Your task to perform on an android device: Open Youtube and go to "Your channel" Image 0: 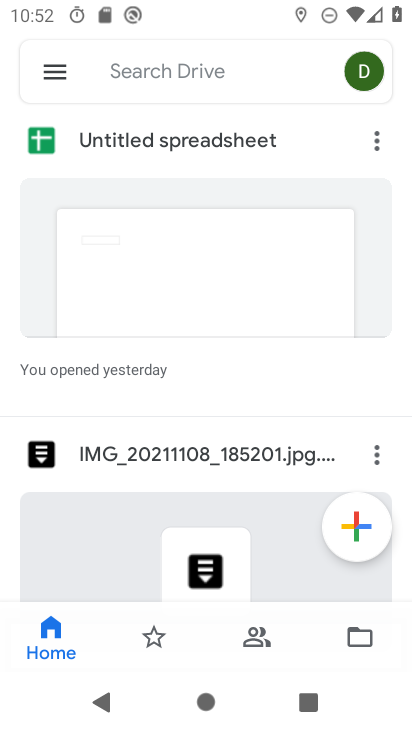
Step 0: press home button
Your task to perform on an android device: Open Youtube and go to "Your channel" Image 1: 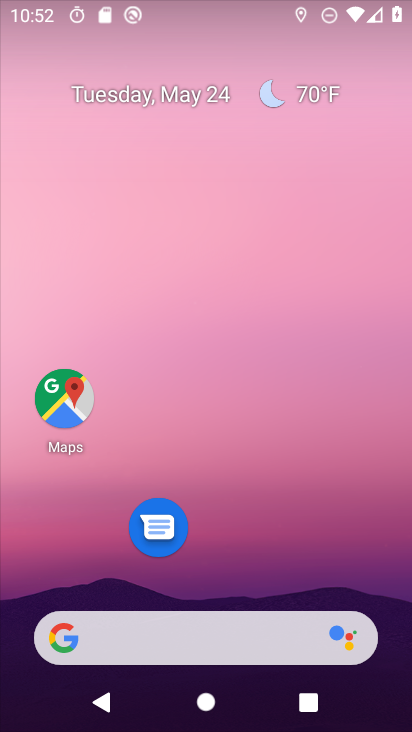
Step 1: drag from (275, 540) to (296, 49)
Your task to perform on an android device: Open Youtube and go to "Your channel" Image 2: 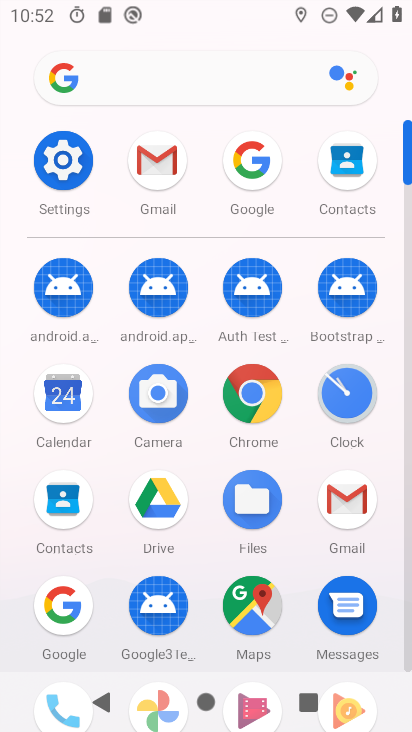
Step 2: drag from (207, 557) to (221, 174)
Your task to perform on an android device: Open Youtube and go to "Your channel" Image 3: 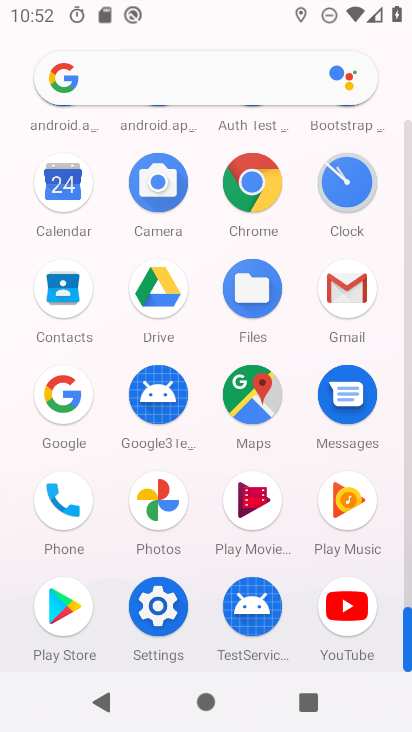
Step 3: click (354, 619)
Your task to perform on an android device: Open Youtube and go to "Your channel" Image 4: 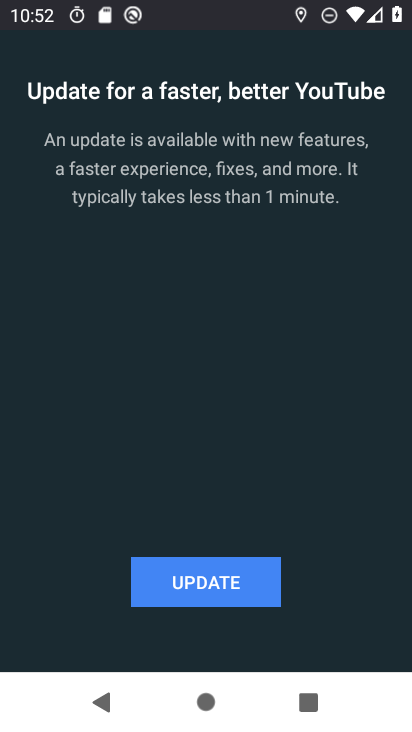
Step 4: click (214, 577)
Your task to perform on an android device: Open Youtube and go to "Your channel" Image 5: 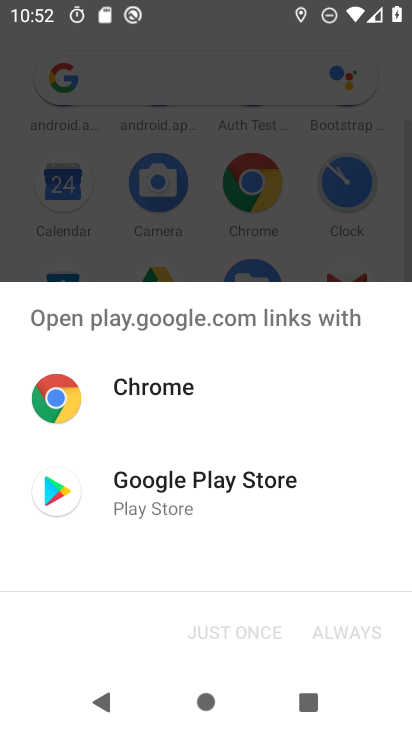
Step 5: click (184, 481)
Your task to perform on an android device: Open Youtube and go to "Your channel" Image 6: 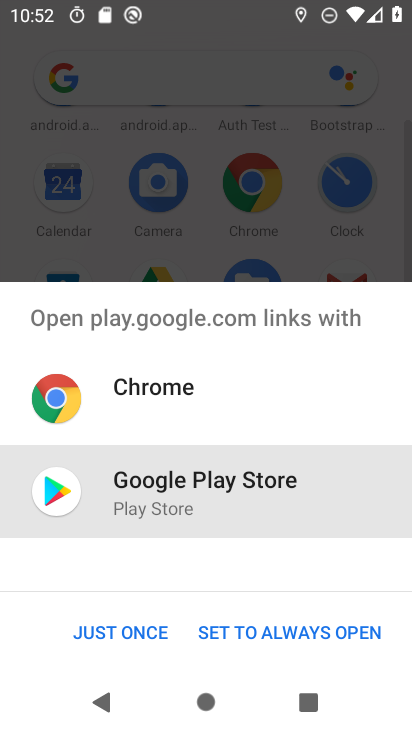
Step 6: click (119, 627)
Your task to perform on an android device: Open Youtube and go to "Your channel" Image 7: 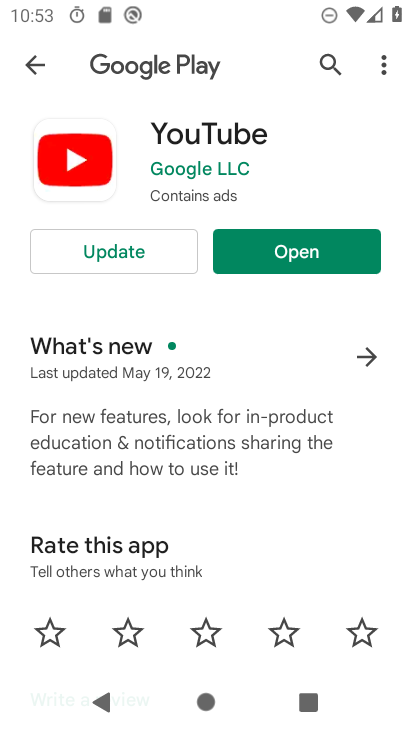
Step 7: click (157, 264)
Your task to perform on an android device: Open Youtube and go to "Your channel" Image 8: 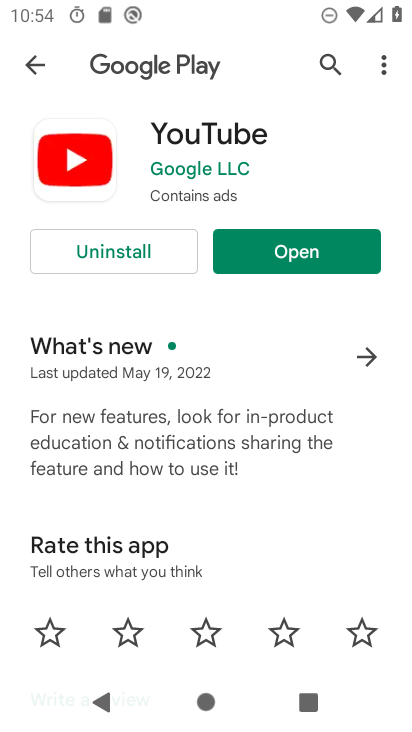
Step 8: click (326, 258)
Your task to perform on an android device: Open Youtube and go to "Your channel" Image 9: 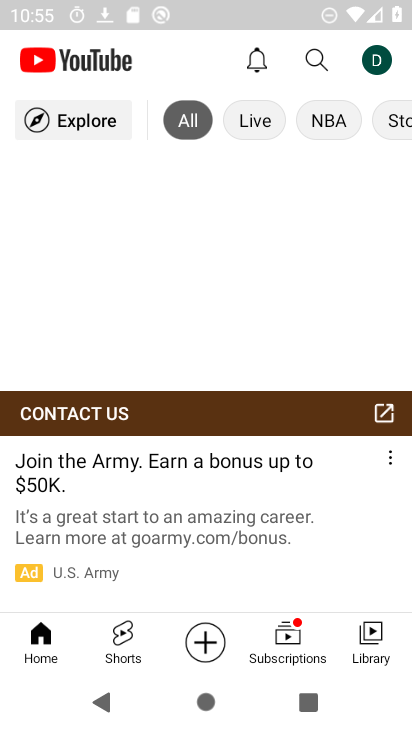
Step 9: click (295, 635)
Your task to perform on an android device: Open Youtube and go to "Your channel" Image 10: 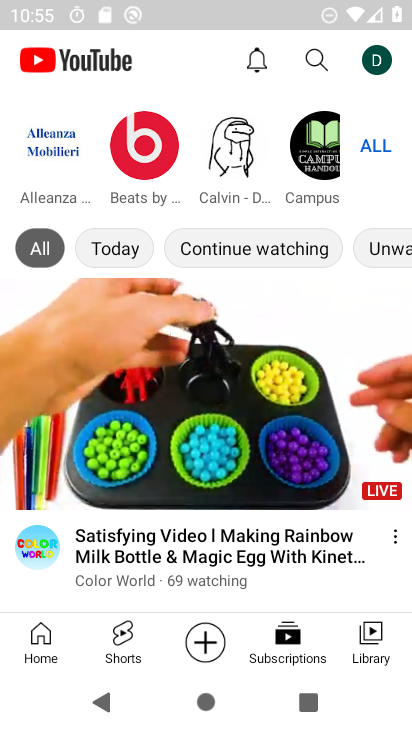
Step 10: click (390, 47)
Your task to perform on an android device: Open Youtube and go to "Your channel" Image 11: 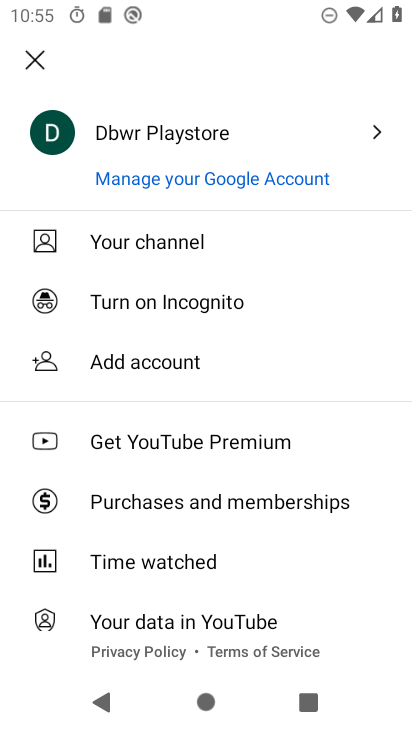
Step 11: click (151, 241)
Your task to perform on an android device: Open Youtube and go to "Your channel" Image 12: 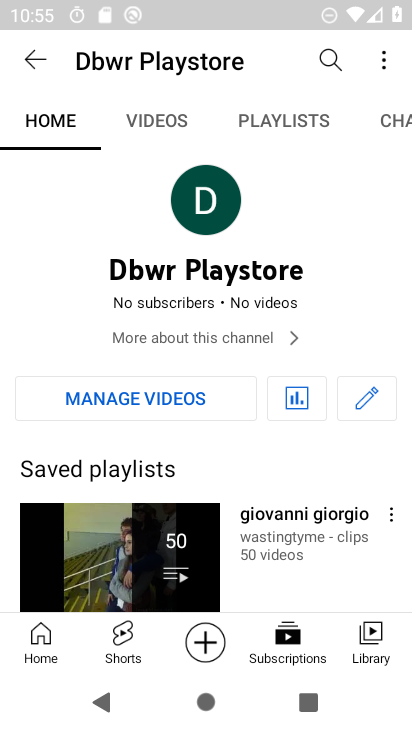
Step 12: task complete